Your task to perform on an android device: visit the assistant section in the google photos Image 0: 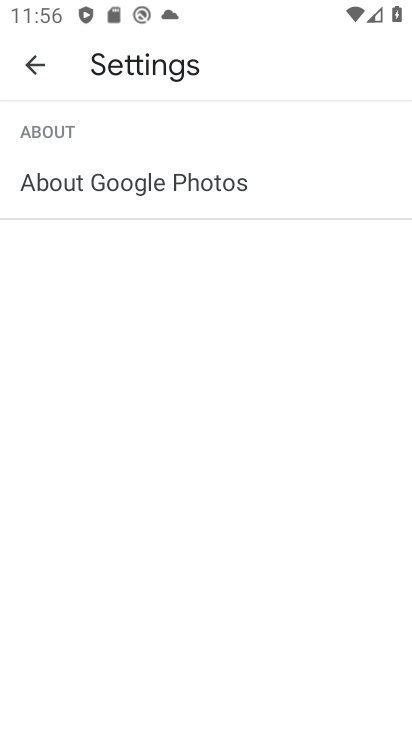
Step 0: press home button
Your task to perform on an android device: visit the assistant section in the google photos Image 1: 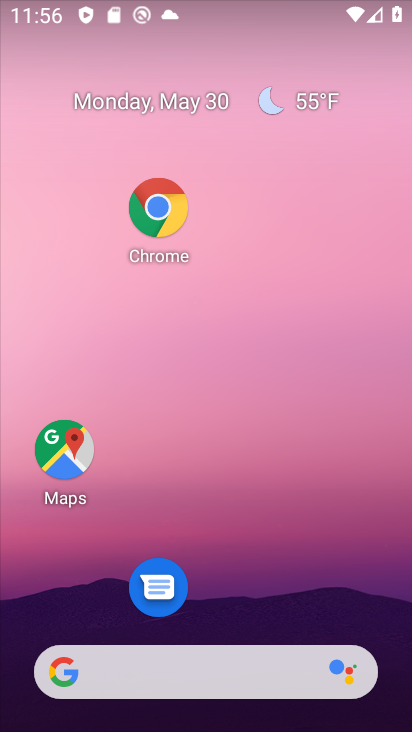
Step 1: drag from (295, 611) to (218, 250)
Your task to perform on an android device: visit the assistant section in the google photos Image 2: 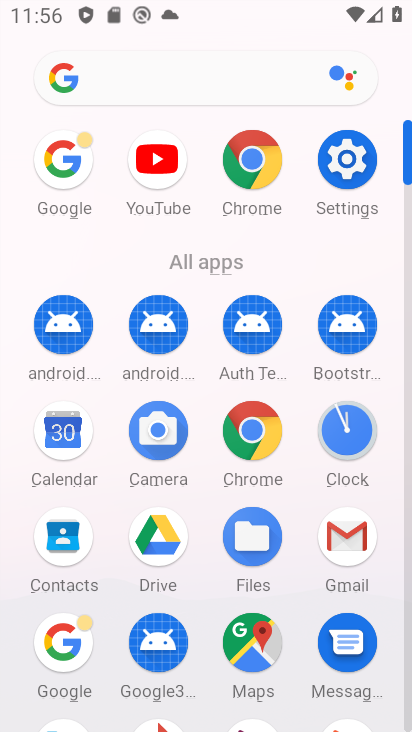
Step 2: drag from (194, 707) to (198, 561)
Your task to perform on an android device: visit the assistant section in the google photos Image 3: 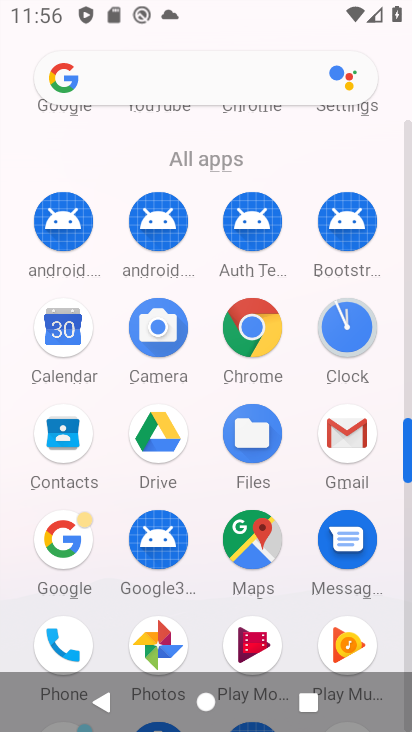
Step 3: click (173, 642)
Your task to perform on an android device: visit the assistant section in the google photos Image 4: 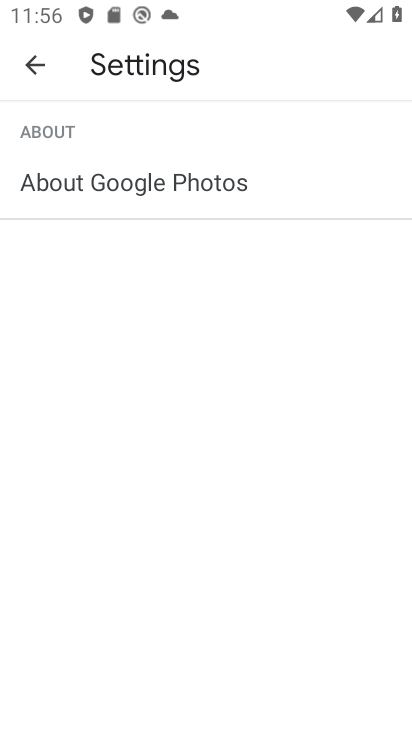
Step 4: click (37, 68)
Your task to perform on an android device: visit the assistant section in the google photos Image 5: 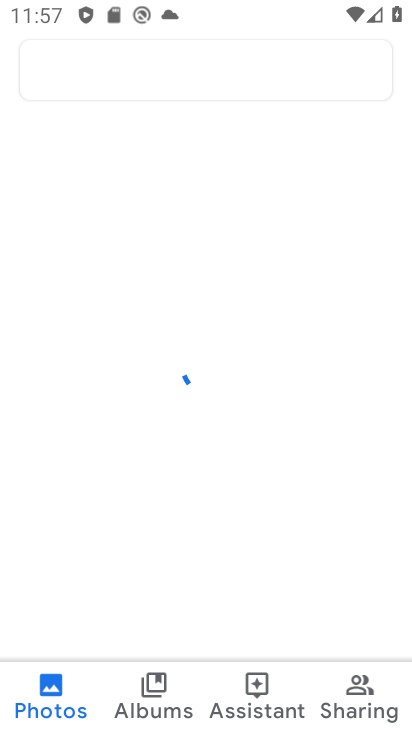
Step 5: click (253, 677)
Your task to perform on an android device: visit the assistant section in the google photos Image 6: 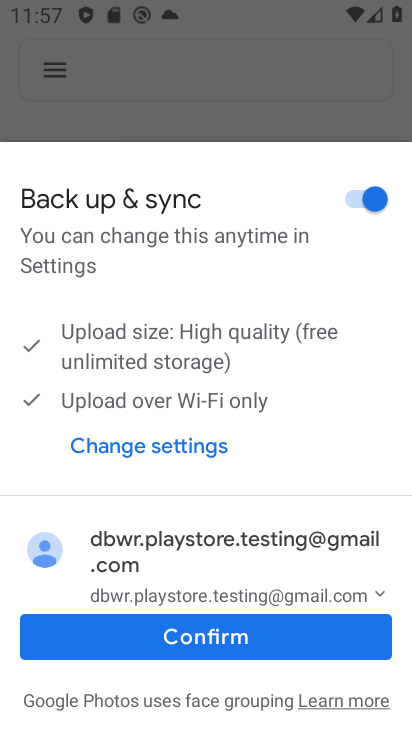
Step 6: click (247, 645)
Your task to perform on an android device: visit the assistant section in the google photos Image 7: 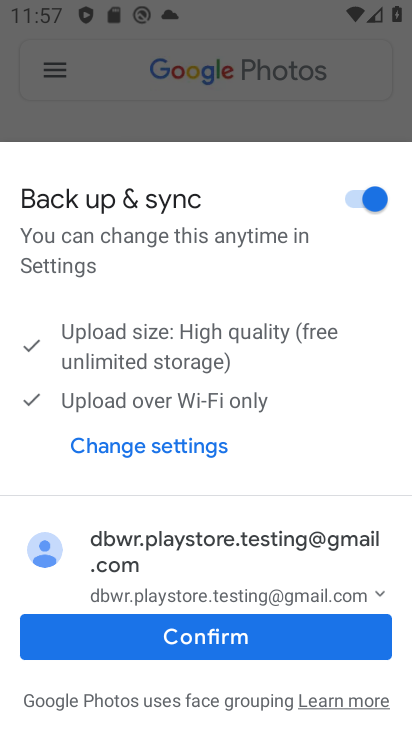
Step 7: click (247, 645)
Your task to perform on an android device: visit the assistant section in the google photos Image 8: 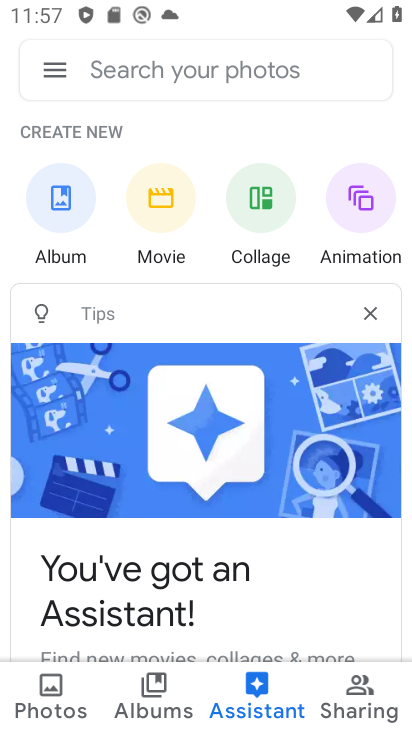
Step 8: click (258, 696)
Your task to perform on an android device: visit the assistant section in the google photos Image 9: 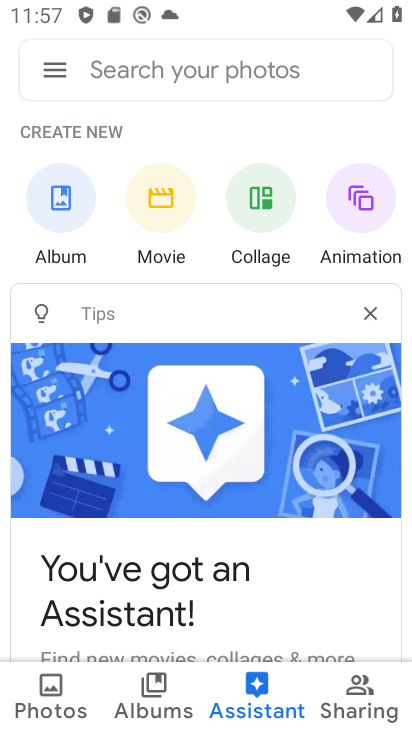
Step 9: task complete